Your task to perform on an android device: Open calendar and show me the first week of next month Image 0: 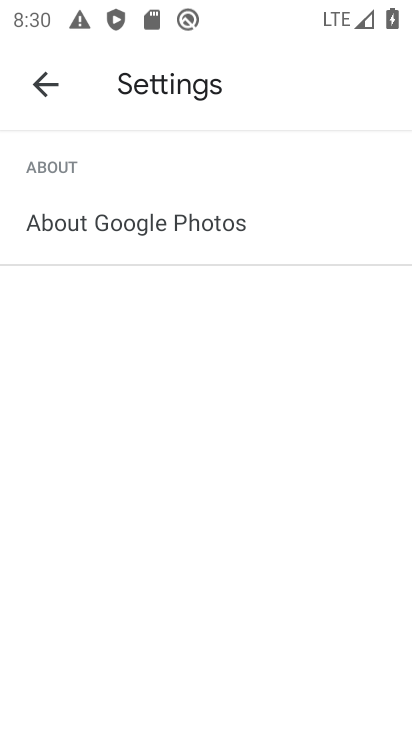
Step 0: press home button
Your task to perform on an android device: Open calendar and show me the first week of next month Image 1: 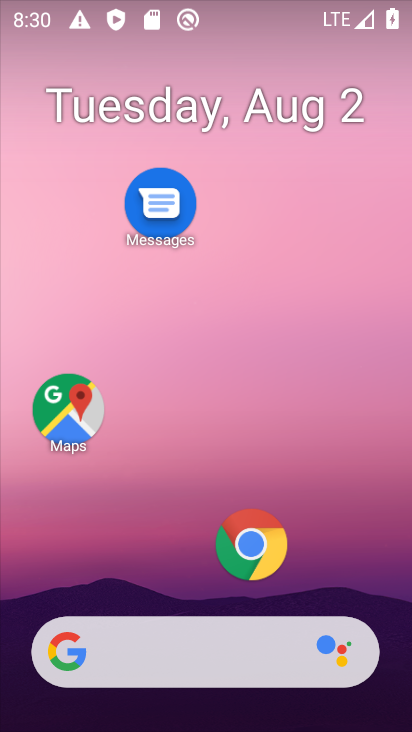
Step 1: drag from (181, 586) to (252, 118)
Your task to perform on an android device: Open calendar and show me the first week of next month Image 2: 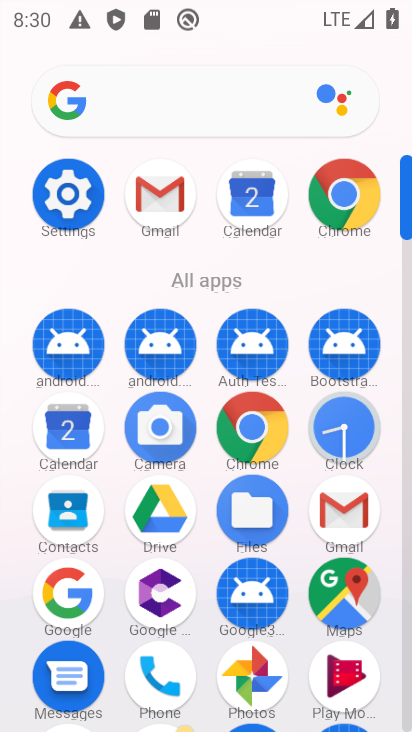
Step 2: click (244, 206)
Your task to perform on an android device: Open calendar and show me the first week of next month Image 3: 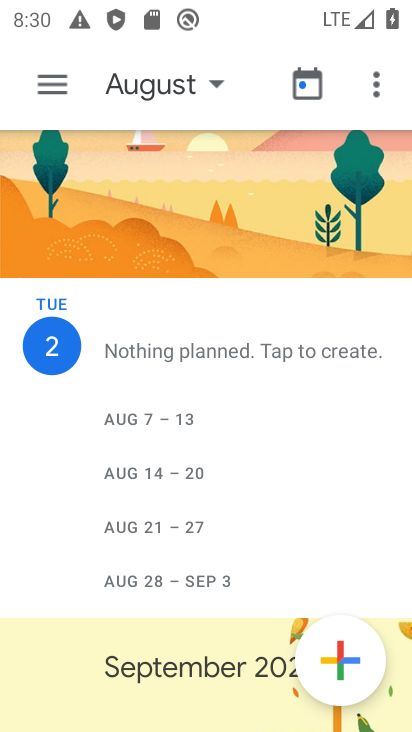
Step 3: click (180, 95)
Your task to perform on an android device: Open calendar and show me the first week of next month Image 4: 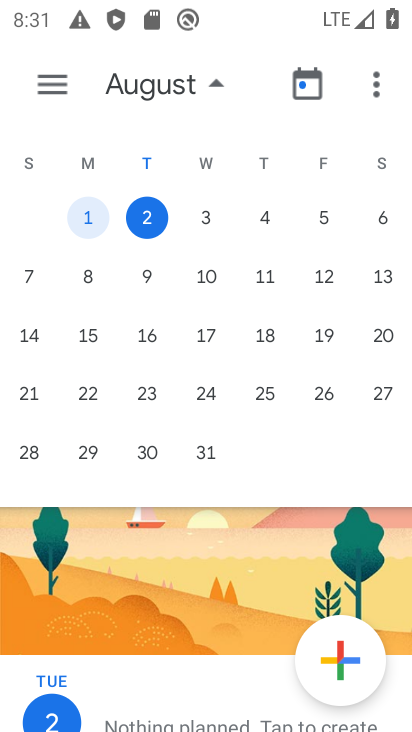
Step 4: drag from (344, 279) to (37, 261)
Your task to perform on an android device: Open calendar and show me the first week of next month Image 5: 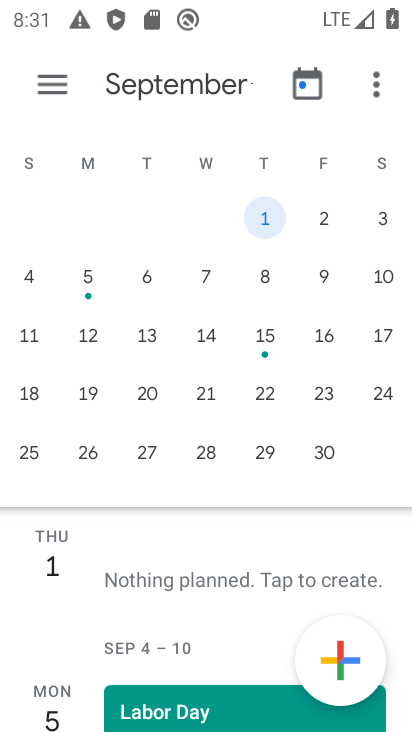
Step 5: click (253, 220)
Your task to perform on an android device: Open calendar and show me the first week of next month Image 6: 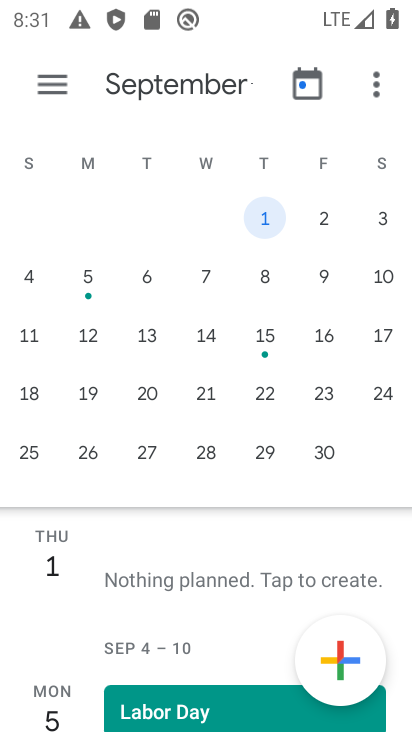
Step 6: click (316, 218)
Your task to perform on an android device: Open calendar and show me the first week of next month Image 7: 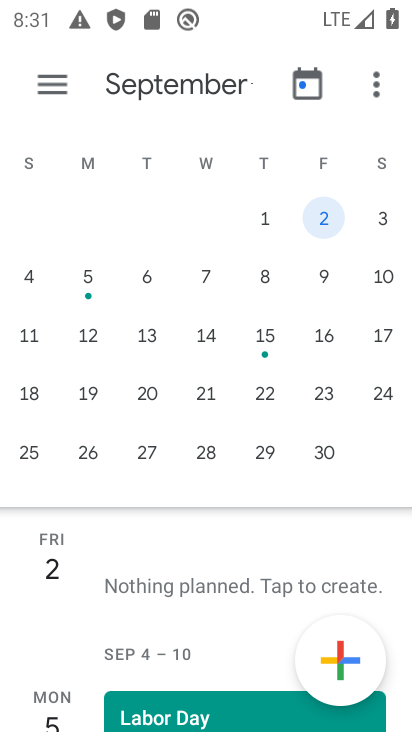
Step 7: click (366, 218)
Your task to perform on an android device: Open calendar and show me the first week of next month Image 8: 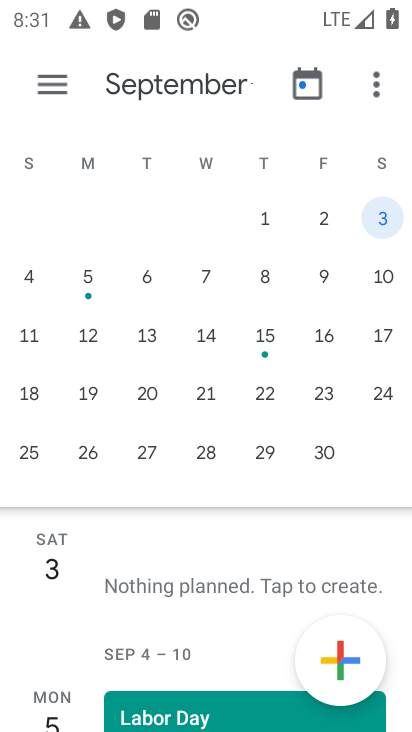
Step 8: task complete